Your task to perform on an android device: Open the calendar app, open the side menu, and click the "Day" option Image 0: 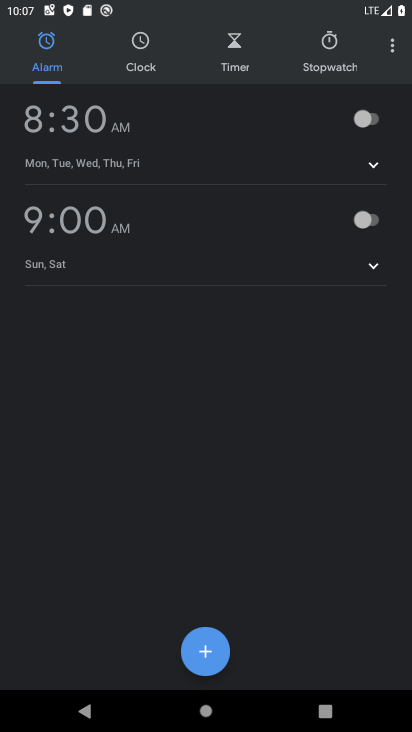
Step 0: click (132, 580)
Your task to perform on an android device: Open the calendar app, open the side menu, and click the "Day" option Image 1: 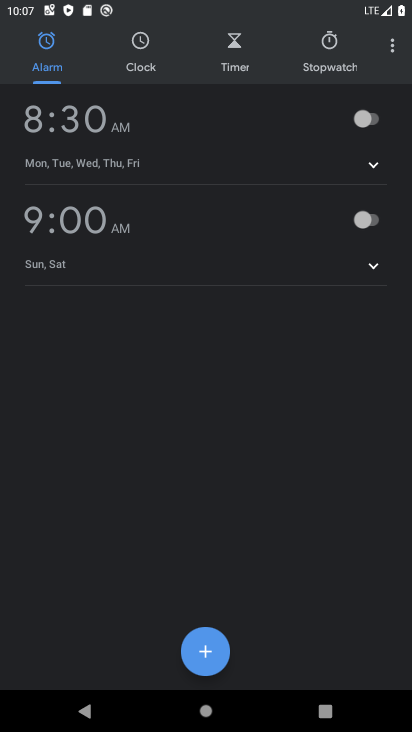
Step 1: press home button
Your task to perform on an android device: Open the calendar app, open the side menu, and click the "Day" option Image 2: 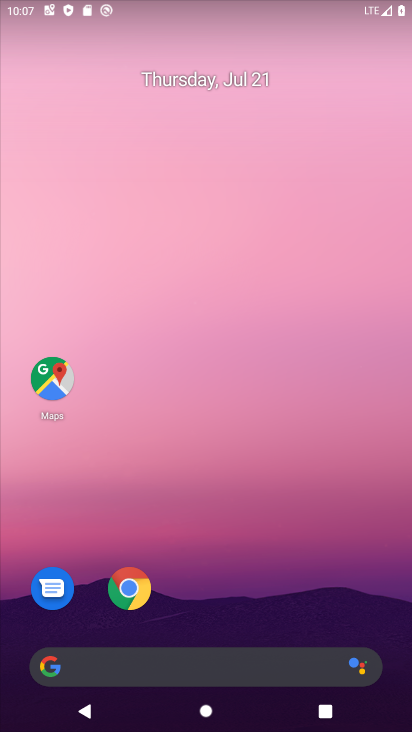
Step 2: drag from (390, 714) to (314, 42)
Your task to perform on an android device: Open the calendar app, open the side menu, and click the "Day" option Image 3: 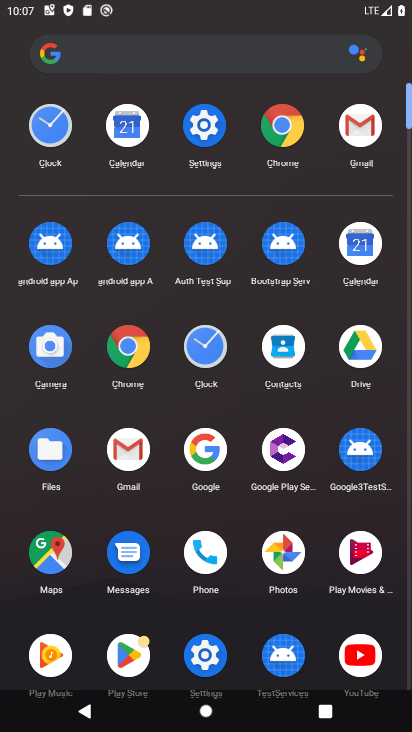
Step 3: click (362, 251)
Your task to perform on an android device: Open the calendar app, open the side menu, and click the "Day" option Image 4: 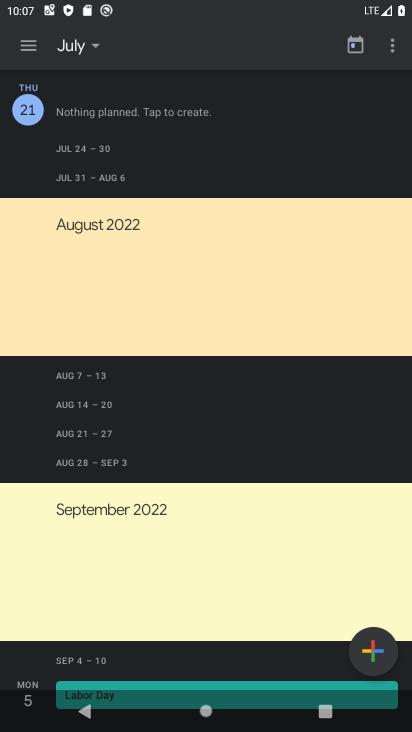
Step 4: click (23, 43)
Your task to perform on an android device: Open the calendar app, open the side menu, and click the "Day" option Image 5: 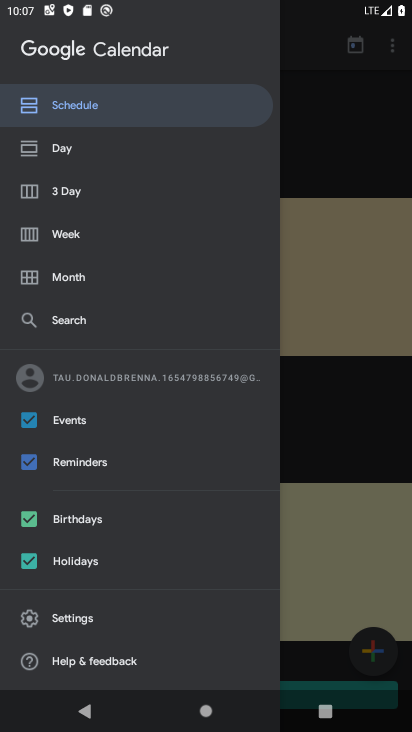
Step 5: click (55, 150)
Your task to perform on an android device: Open the calendar app, open the side menu, and click the "Day" option Image 6: 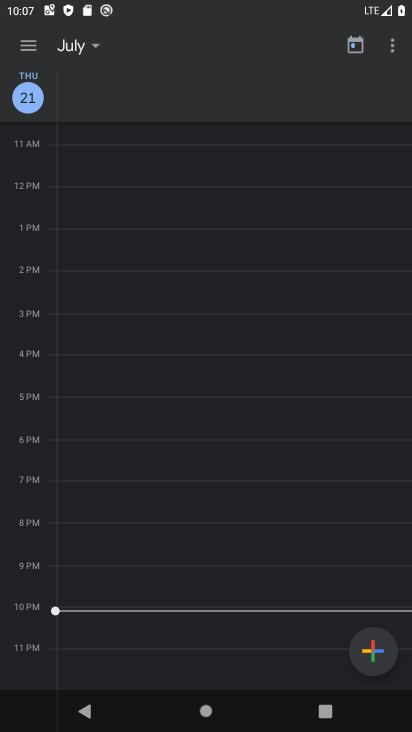
Step 6: task complete